Your task to perform on an android device: allow cookies in the chrome app Image 0: 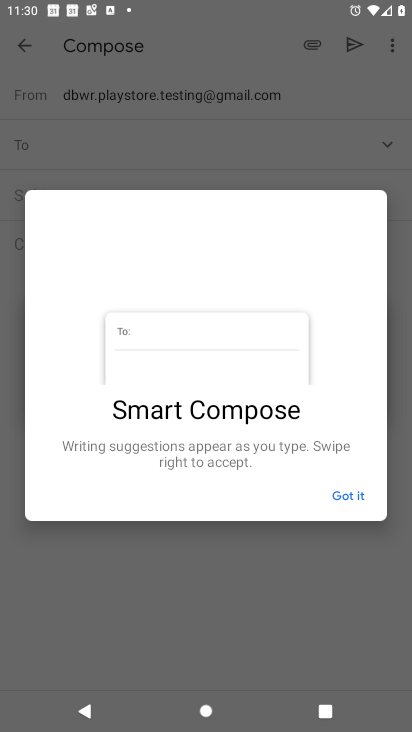
Step 0: press home button
Your task to perform on an android device: allow cookies in the chrome app Image 1: 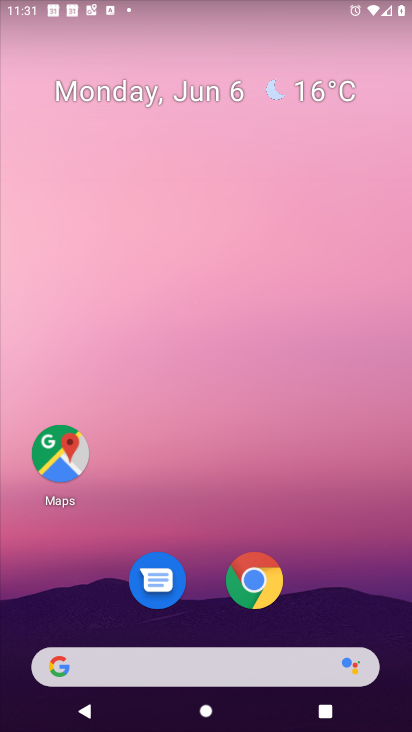
Step 1: drag from (359, 493) to (223, 10)
Your task to perform on an android device: allow cookies in the chrome app Image 2: 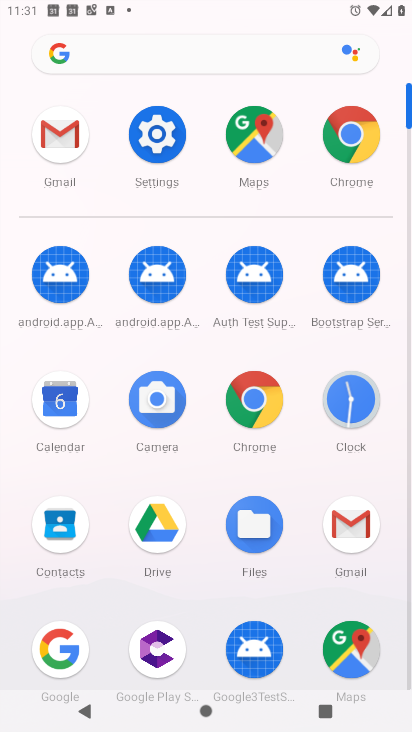
Step 2: click (374, 141)
Your task to perform on an android device: allow cookies in the chrome app Image 3: 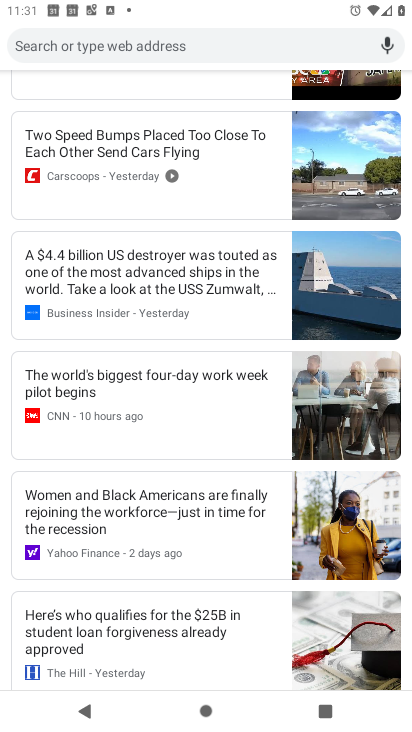
Step 3: drag from (159, 182) to (188, 630)
Your task to perform on an android device: allow cookies in the chrome app Image 4: 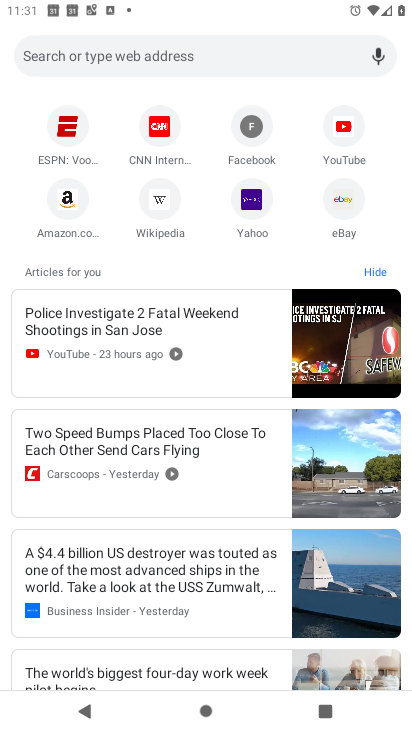
Step 4: drag from (250, 235) to (314, 684)
Your task to perform on an android device: allow cookies in the chrome app Image 5: 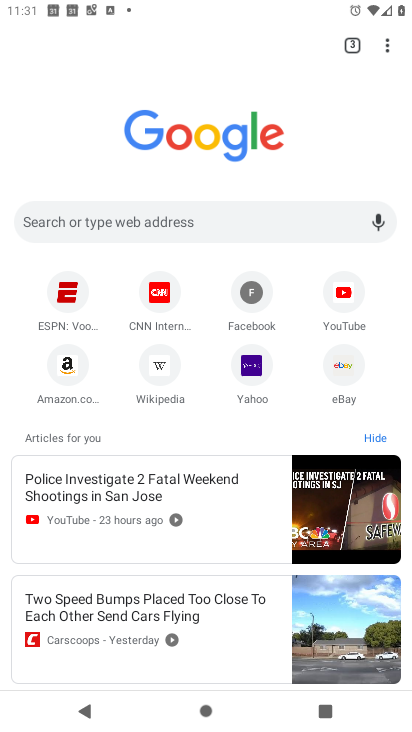
Step 5: click (385, 37)
Your task to perform on an android device: allow cookies in the chrome app Image 6: 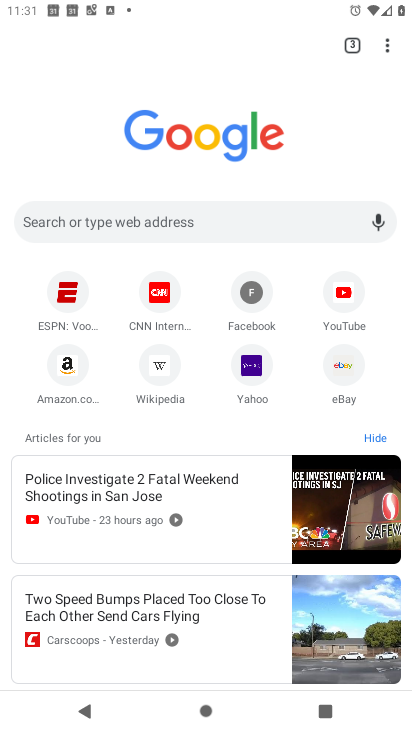
Step 6: drag from (385, 36) to (243, 377)
Your task to perform on an android device: allow cookies in the chrome app Image 7: 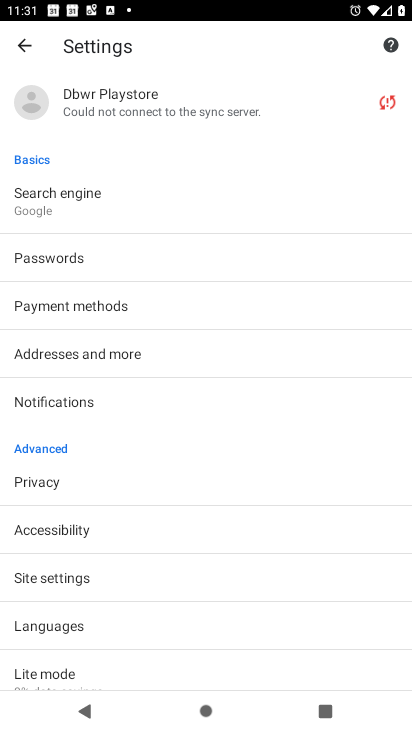
Step 7: click (70, 573)
Your task to perform on an android device: allow cookies in the chrome app Image 8: 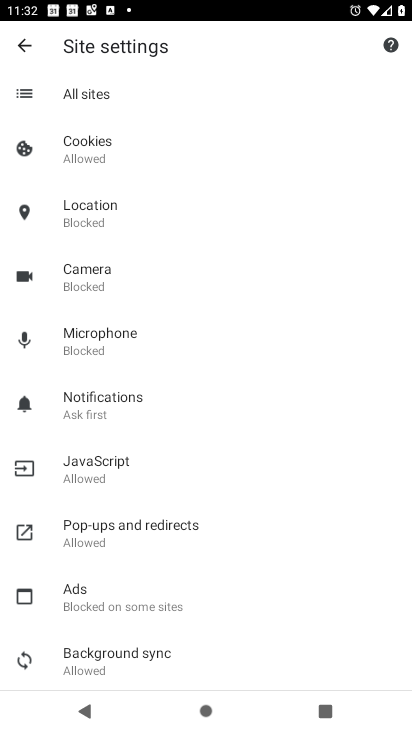
Step 8: click (107, 147)
Your task to perform on an android device: allow cookies in the chrome app Image 9: 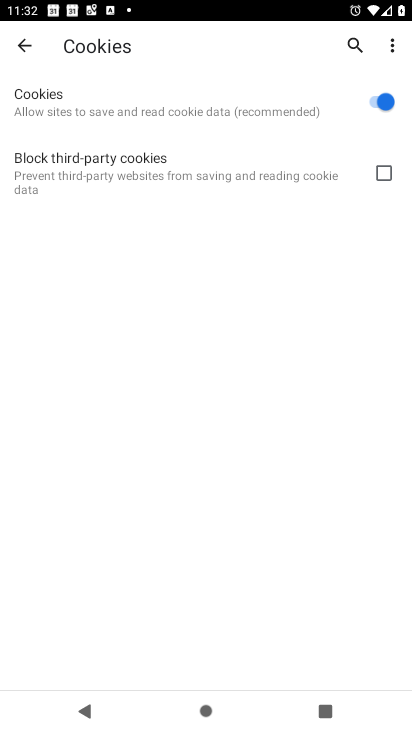
Step 9: task complete